Your task to perform on an android device: clear all cookies in the chrome app Image 0: 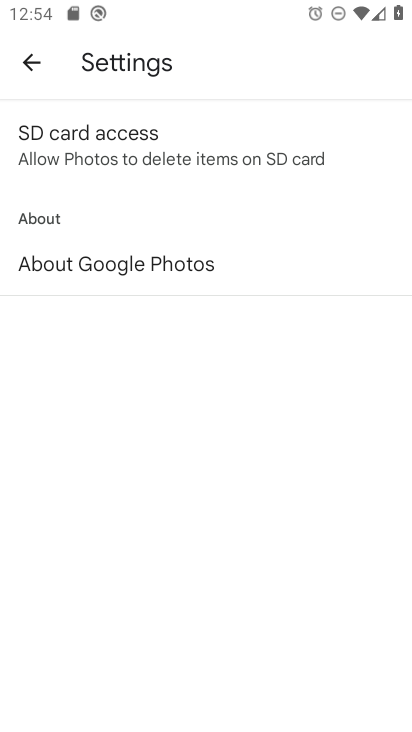
Step 0: press home button
Your task to perform on an android device: clear all cookies in the chrome app Image 1: 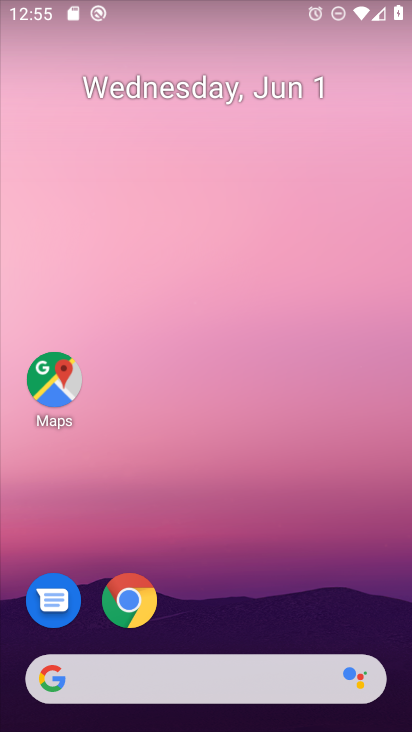
Step 1: click (127, 594)
Your task to perform on an android device: clear all cookies in the chrome app Image 2: 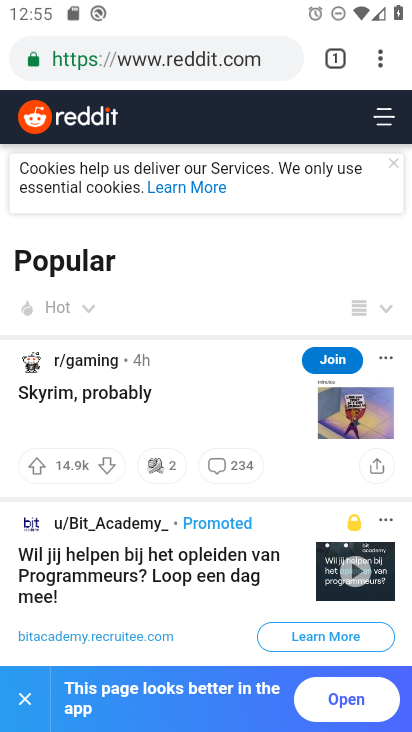
Step 2: click (382, 54)
Your task to perform on an android device: clear all cookies in the chrome app Image 3: 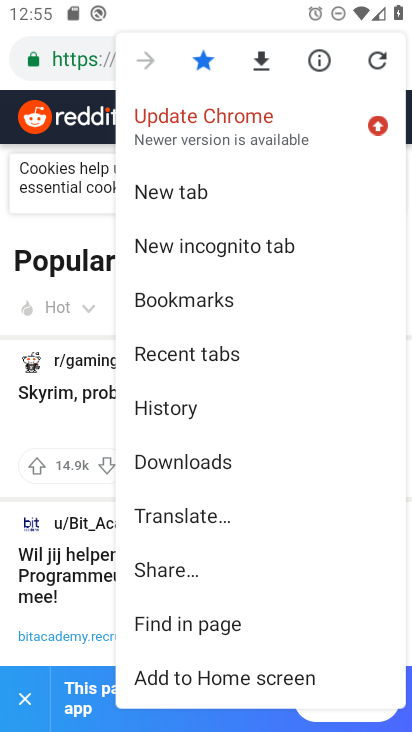
Step 3: click (201, 406)
Your task to perform on an android device: clear all cookies in the chrome app Image 4: 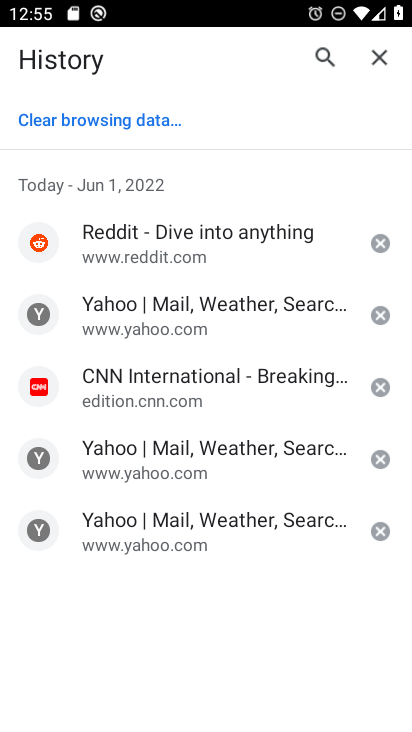
Step 4: click (104, 115)
Your task to perform on an android device: clear all cookies in the chrome app Image 5: 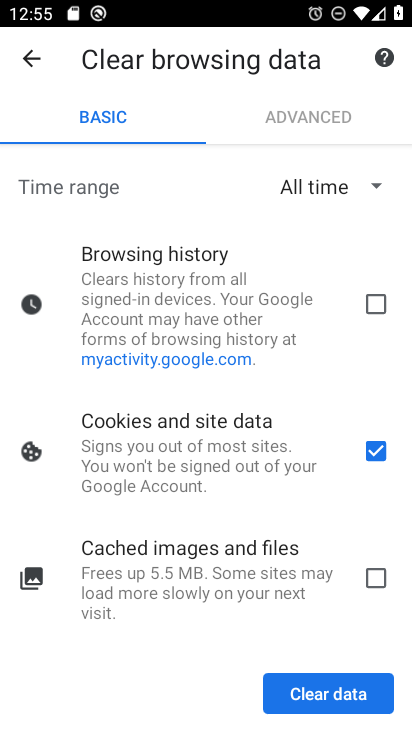
Step 5: click (363, 302)
Your task to perform on an android device: clear all cookies in the chrome app Image 6: 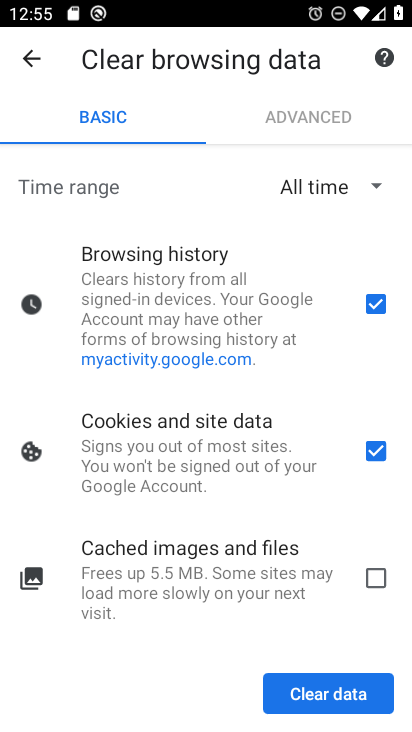
Step 6: click (364, 570)
Your task to perform on an android device: clear all cookies in the chrome app Image 7: 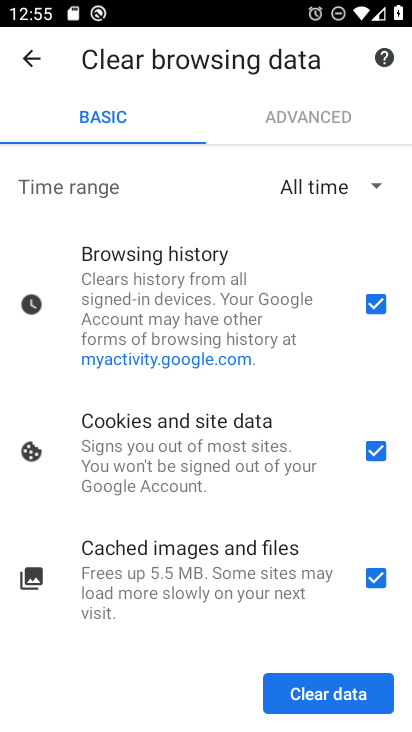
Step 7: task complete